Your task to perform on an android device: Go to location settings Image 0: 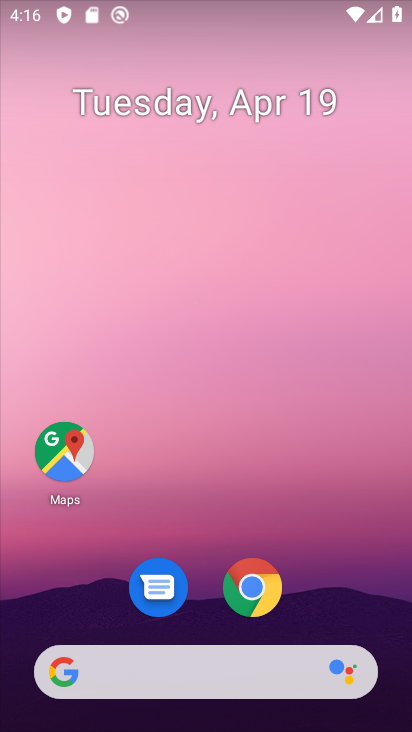
Step 0: click (296, 51)
Your task to perform on an android device: Go to location settings Image 1: 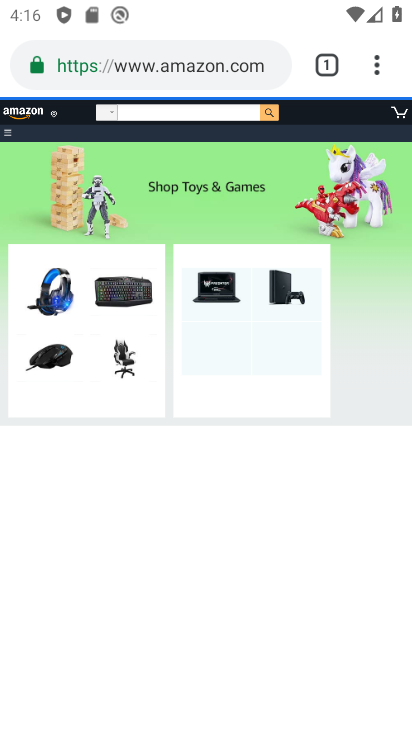
Step 1: press back button
Your task to perform on an android device: Go to location settings Image 2: 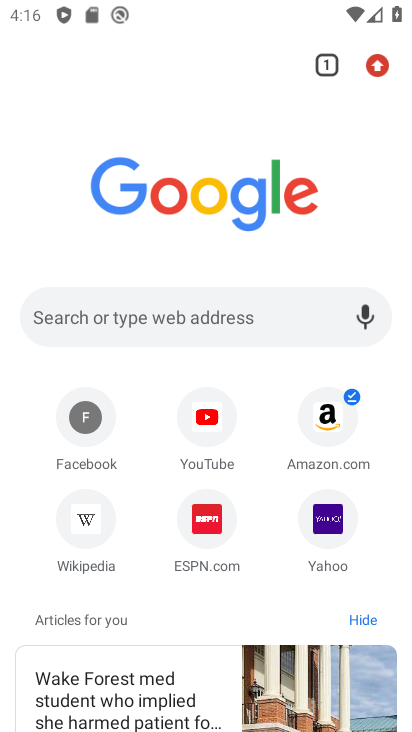
Step 2: press back button
Your task to perform on an android device: Go to location settings Image 3: 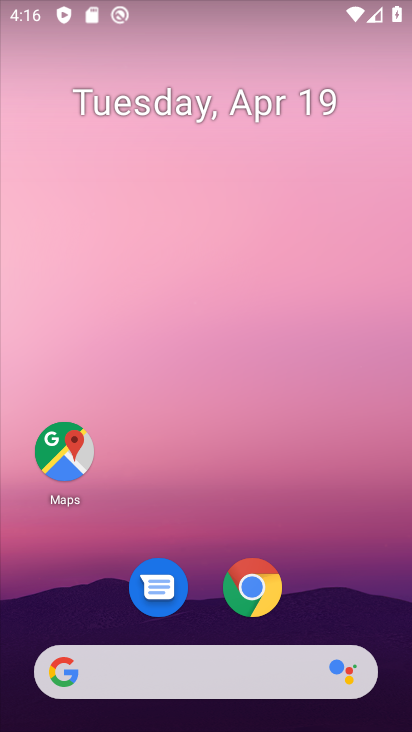
Step 3: drag from (338, 590) to (216, 60)
Your task to perform on an android device: Go to location settings Image 4: 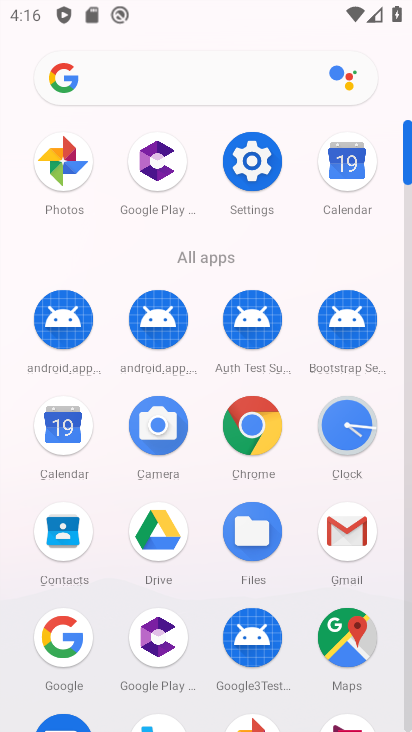
Step 4: click (251, 160)
Your task to perform on an android device: Go to location settings Image 5: 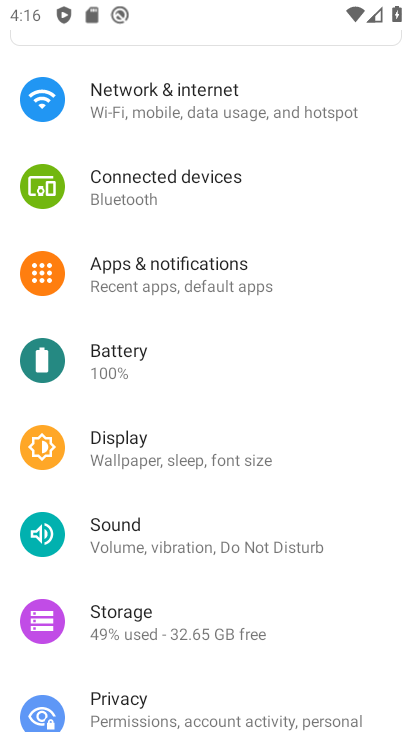
Step 5: drag from (256, 528) to (243, 149)
Your task to perform on an android device: Go to location settings Image 6: 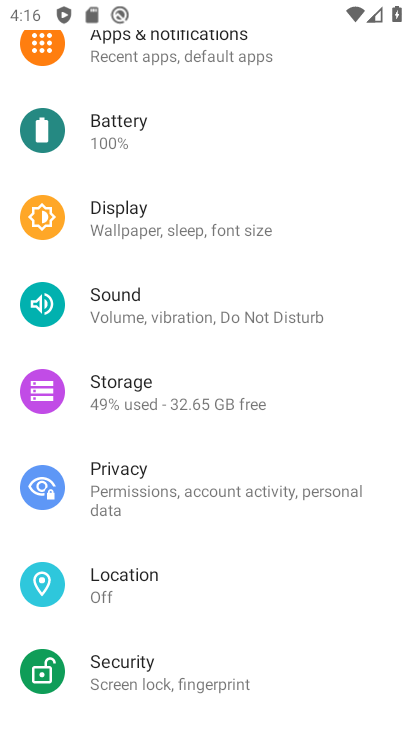
Step 6: click (151, 580)
Your task to perform on an android device: Go to location settings Image 7: 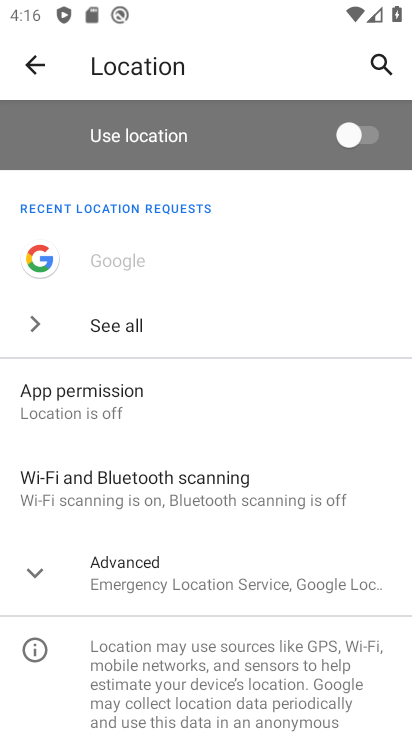
Step 7: drag from (204, 552) to (196, 229)
Your task to perform on an android device: Go to location settings Image 8: 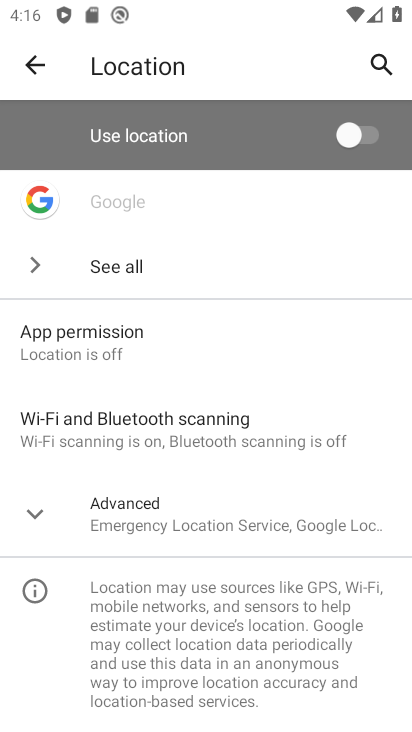
Step 8: click (91, 518)
Your task to perform on an android device: Go to location settings Image 9: 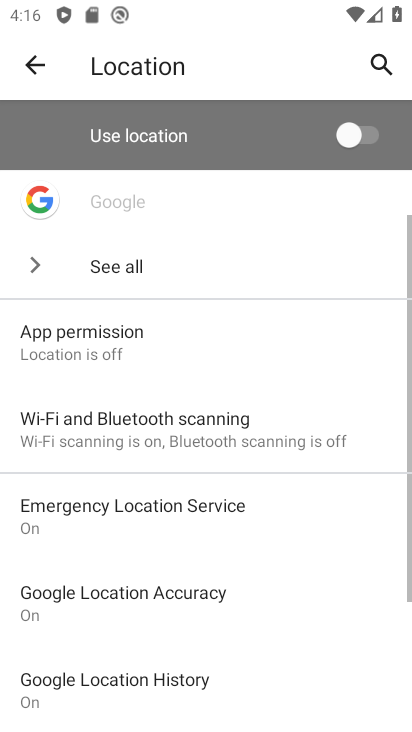
Step 9: task complete